Your task to perform on an android device: turn off notifications in google photos Image 0: 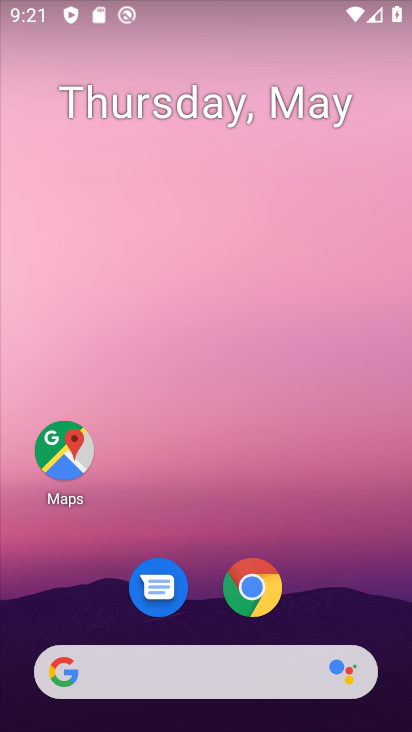
Step 0: drag from (337, 583) to (339, 0)
Your task to perform on an android device: turn off notifications in google photos Image 1: 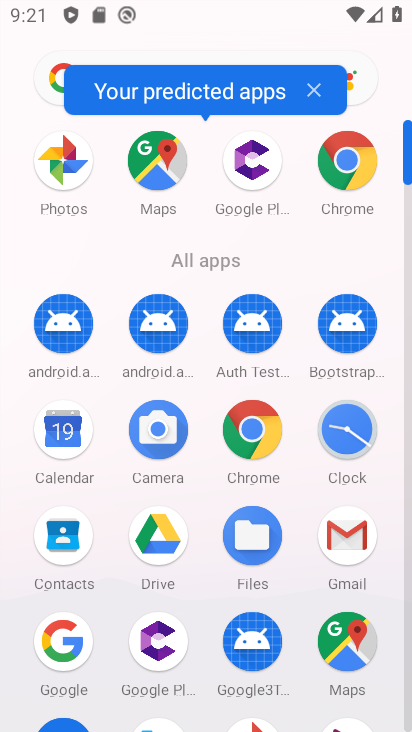
Step 1: click (58, 169)
Your task to perform on an android device: turn off notifications in google photos Image 2: 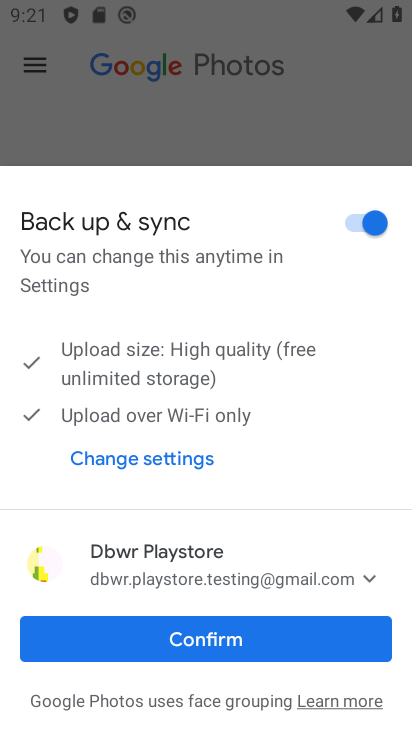
Step 2: click (219, 645)
Your task to perform on an android device: turn off notifications in google photos Image 3: 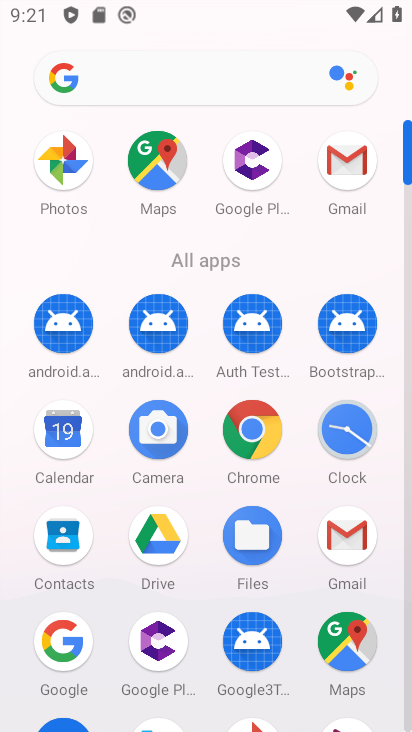
Step 3: click (63, 162)
Your task to perform on an android device: turn off notifications in google photos Image 4: 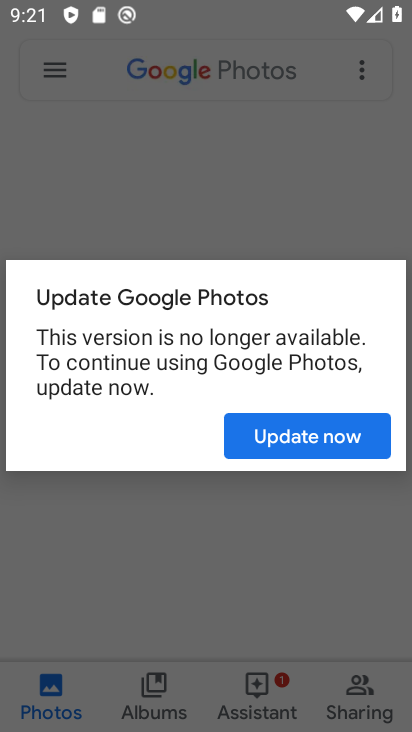
Step 4: click (285, 450)
Your task to perform on an android device: turn off notifications in google photos Image 5: 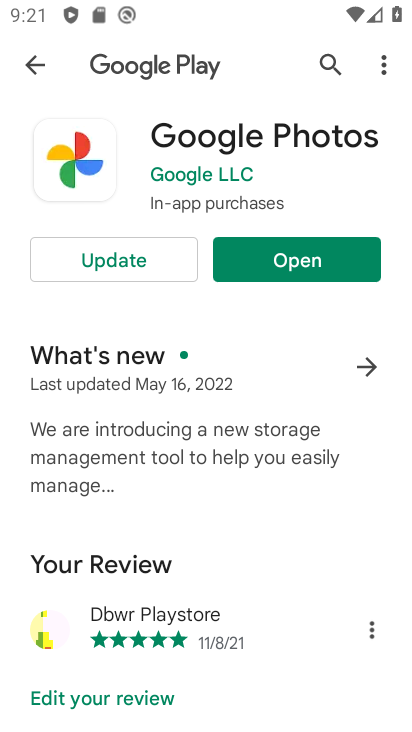
Step 5: click (268, 267)
Your task to perform on an android device: turn off notifications in google photos Image 6: 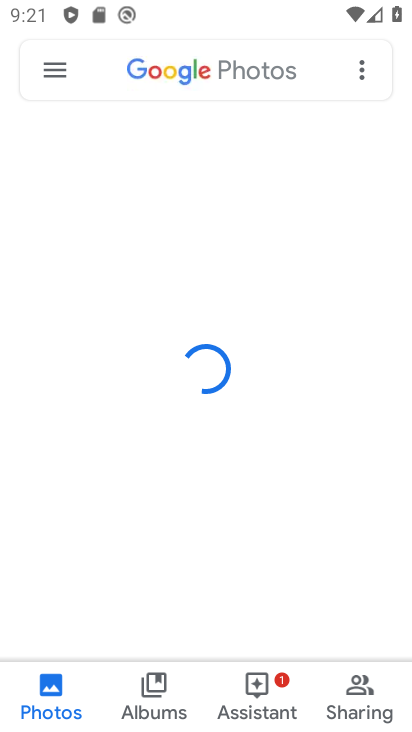
Step 6: click (45, 73)
Your task to perform on an android device: turn off notifications in google photos Image 7: 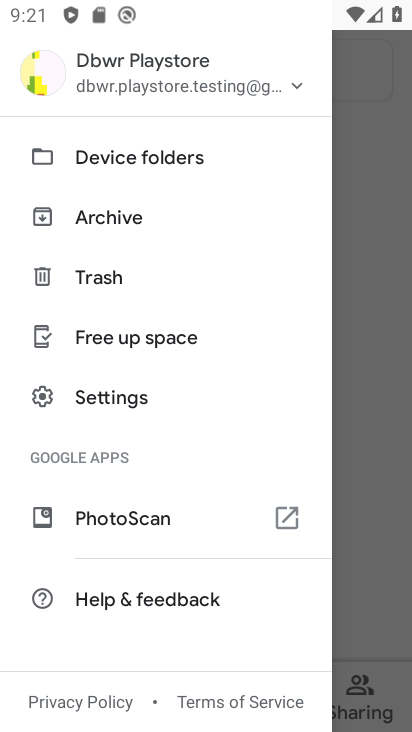
Step 7: click (113, 401)
Your task to perform on an android device: turn off notifications in google photos Image 8: 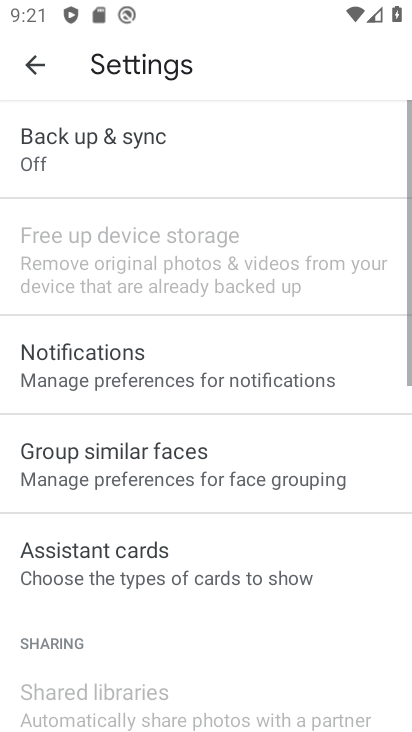
Step 8: click (103, 372)
Your task to perform on an android device: turn off notifications in google photos Image 9: 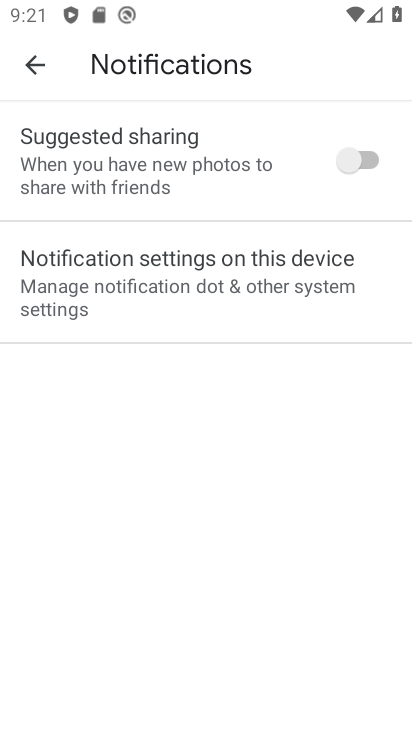
Step 9: click (261, 275)
Your task to perform on an android device: turn off notifications in google photos Image 10: 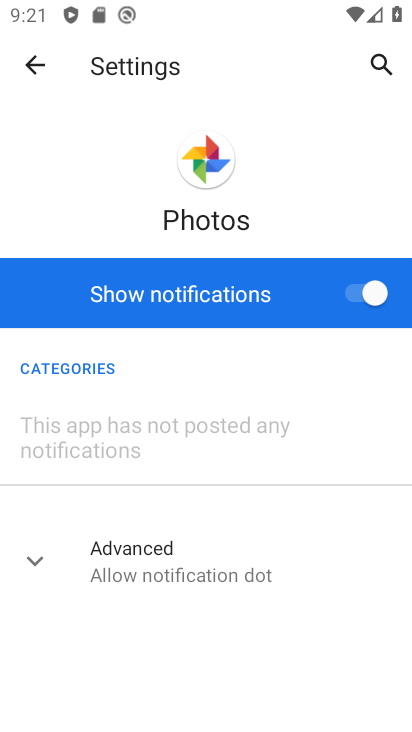
Step 10: click (376, 301)
Your task to perform on an android device: turn off notifications in google photos Image 11: 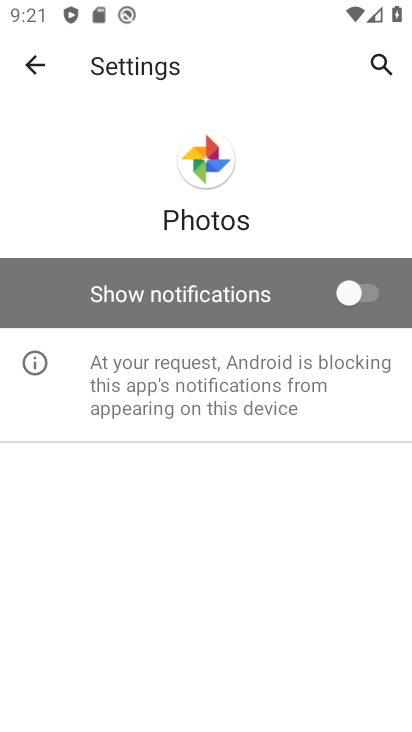
Step 11: task complete